Your task to perform on an android device: Open the calendar and show me this week's events Image 0: 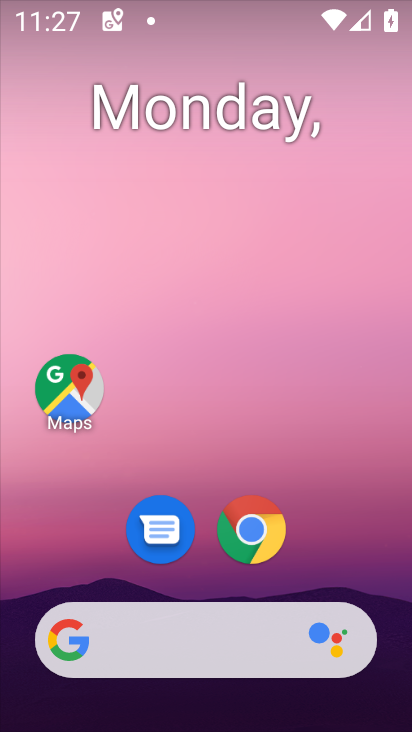
Step 0: press home button
Your task to perform on an android device: Open the calendar and show me this week's events Image 1: 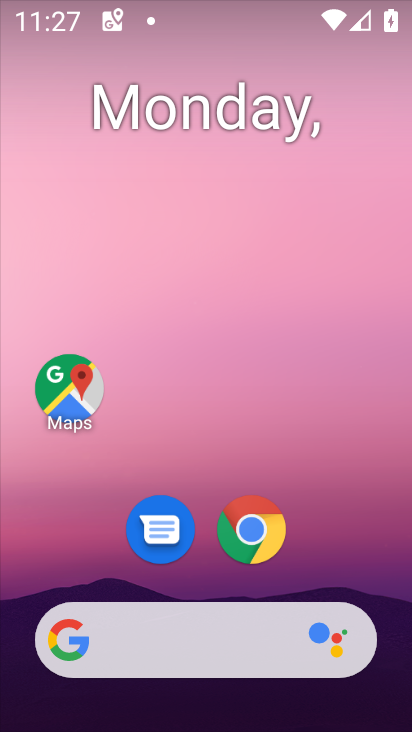
Step 1: drag from (226, 694) to (251, 333)
Your task to perform on an android device: Open the calendar and show me this week's events Image 2: 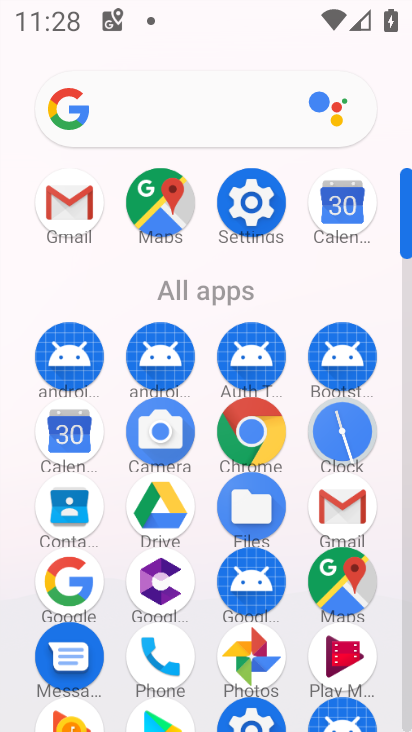
Step 2: click (58, 437)
Your task to perform on an android device: Open the calendar and show me this week's events Image 3: 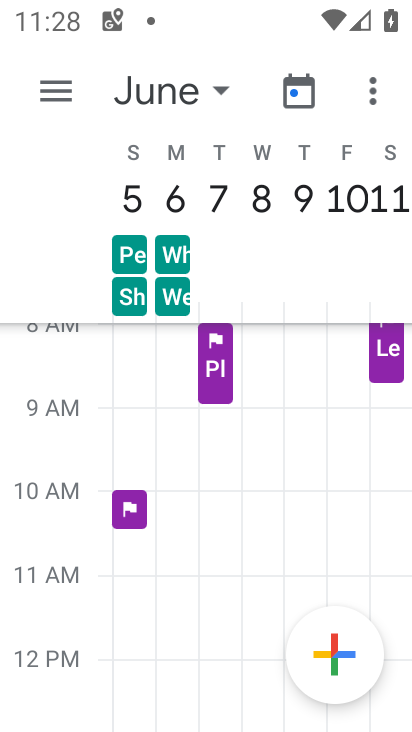
Step 3: click (56, 78)
Your task to perform on an android device: Open the calendar and show me this week's events Image 4: 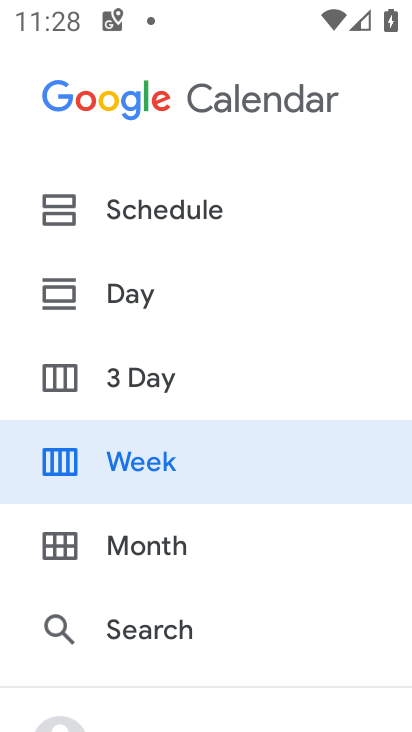
Step 4: click (139, 465)
Your task to perform on an android device: Open the calendar and show me this week's events Image 5: 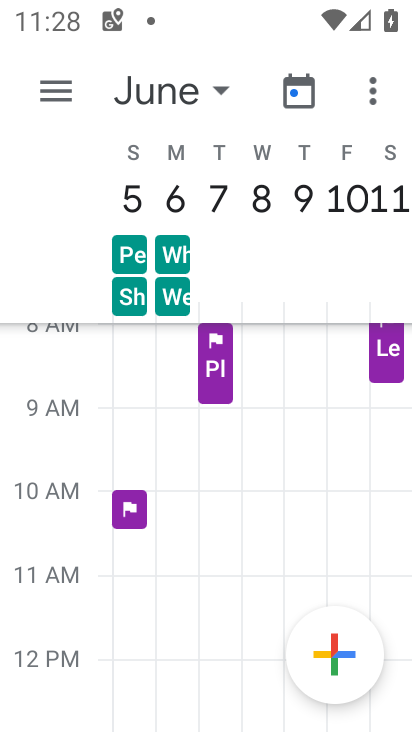
Step 5: task complete